Your task to perform on an android device: toggle priority inbox in the gmail app Image 0: 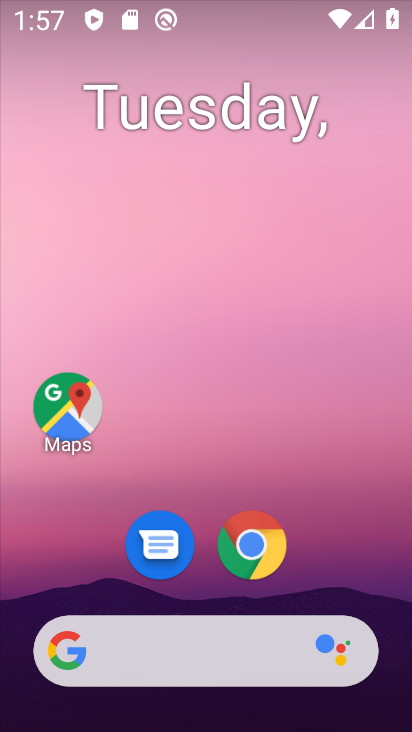
Step 0: drag from (325, 562) to (247, 61)
Your task to perform on an android device: toggle priority inbox in the gmail app Image 1: 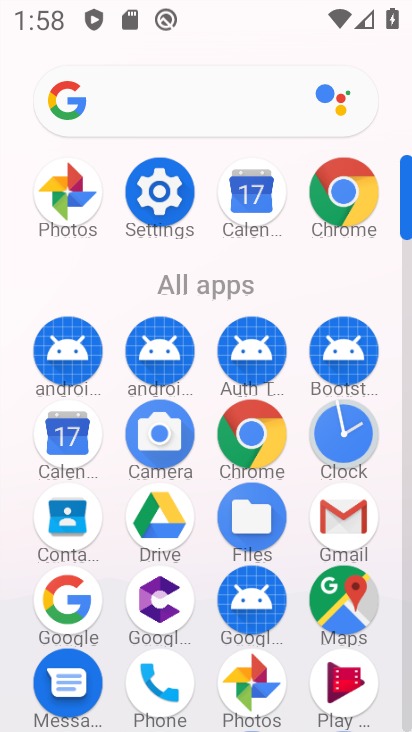
Step 1: drag from (7, 544) to (5, 272)
Your task to perform on an android device: toggle priority inbox in the gmail app Image 2: 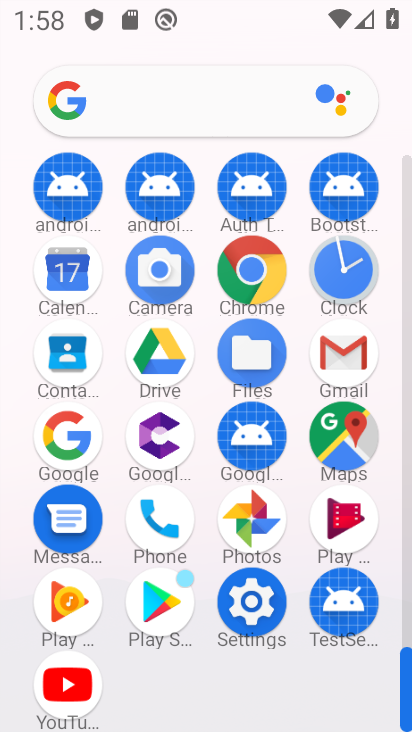
Step 2: click (245, 600)
Your task to perform on an android device: toggle priority inbox in the gmail app Image 3: 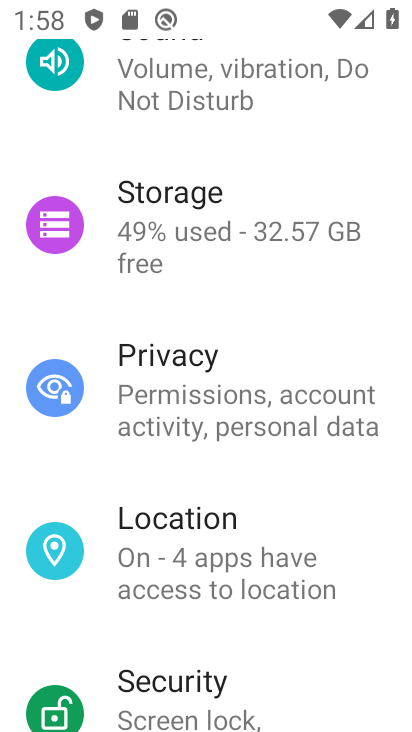
Step 3: press back button
Your task to perform on an android device: toggle priority inbox in the gmail app Image 4: 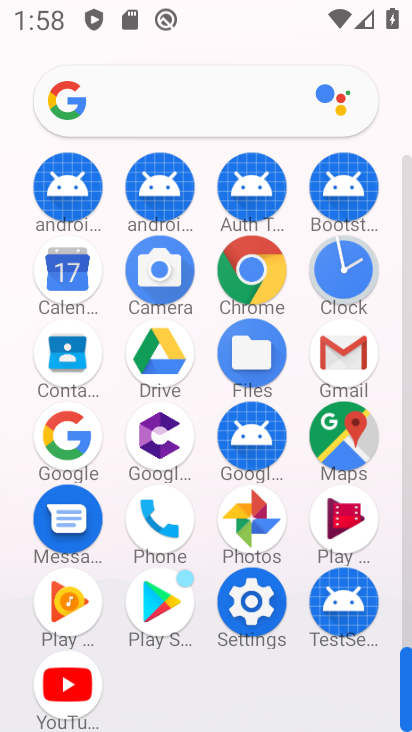
Step 4: click (342, 346)
Your task to perform on an android device: toggle priority inbox in the gmail app Image 5: 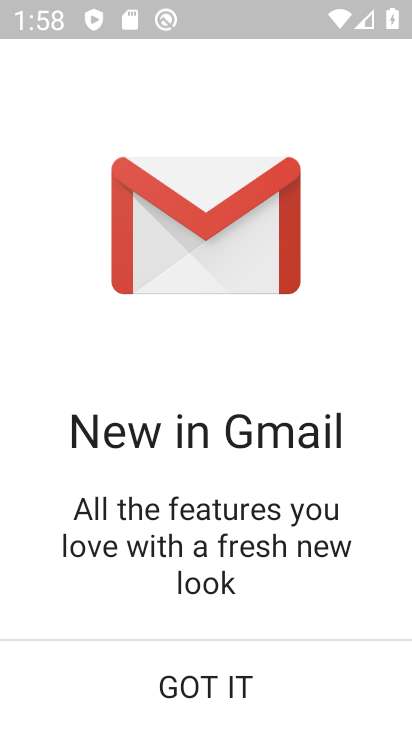
Step 5: click (174, 654)
Your task to perform on an android device: toggle priority inbox in the gmail app Image 6: 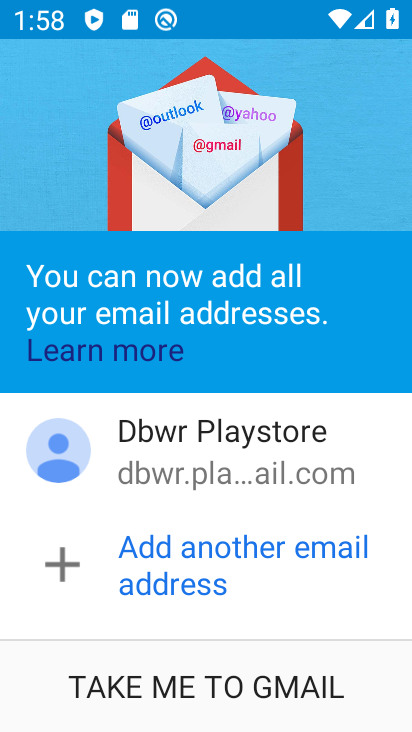
Step 6: click (177, 672)
Your task to perform on an android device: toggle priority inbox in the gmail app Image 7: 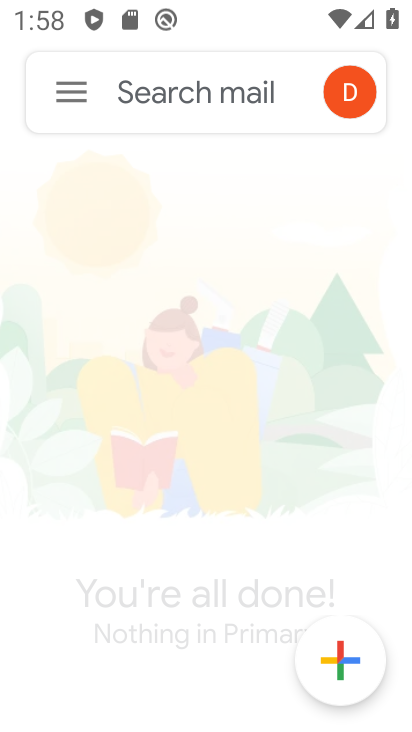
Step 7: click (57, 85)
Your task to perform on an android device: toggle priority inbox in the gmail app Image 8: 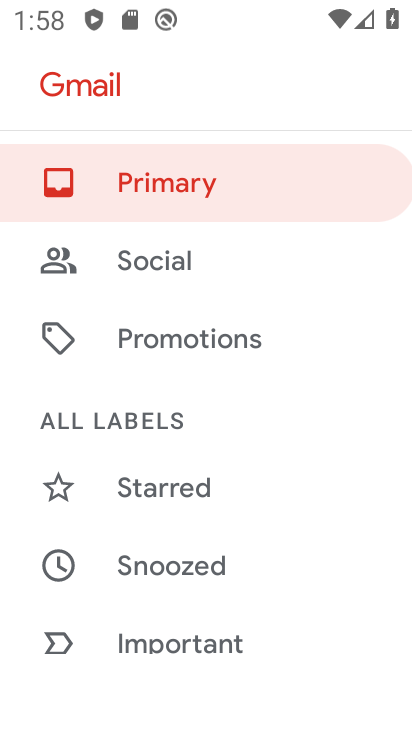
Step 8: drag from (237, 522) to (237, 168)
Your task to perform on an android device: toggle priority inbox in the gmail app Image 9: 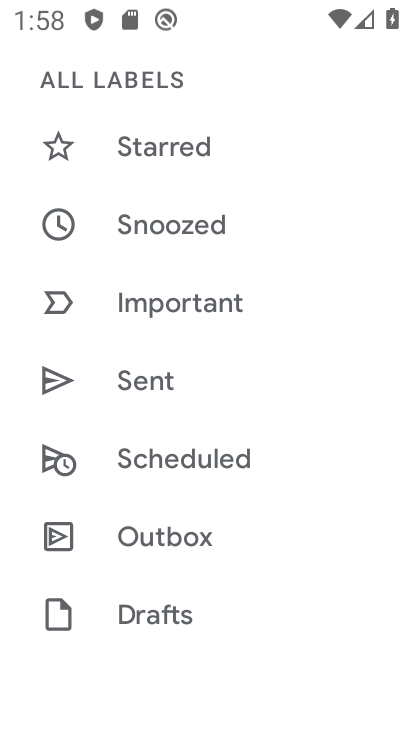
Step 9: drag from (213, 586) to (245, 225)
Your task to perform on an android device: toggle priority inbox in the gmail app Image 10: 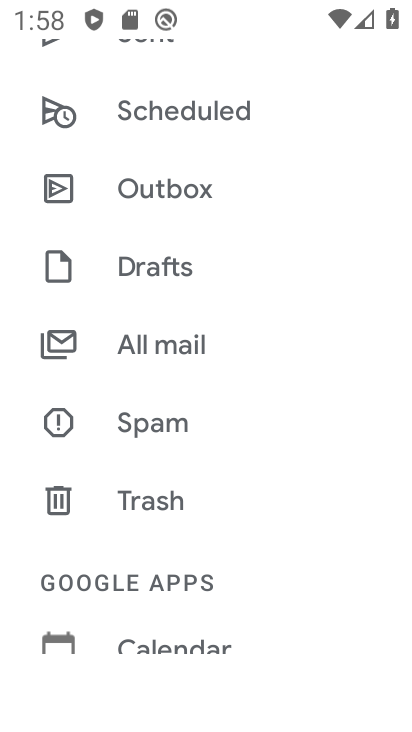
Step 10: drag from (217, 569) to (223, 145)
Your task to perform on an android device: toggle priority inbox in the gmail app Image 11: 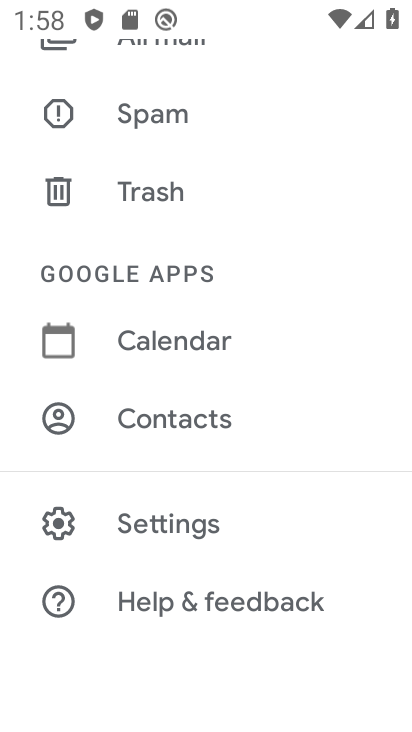
Step 11: click (163, 526)
Your task to perform on an android device: toggle priority inbox in the gmail app Image 12: 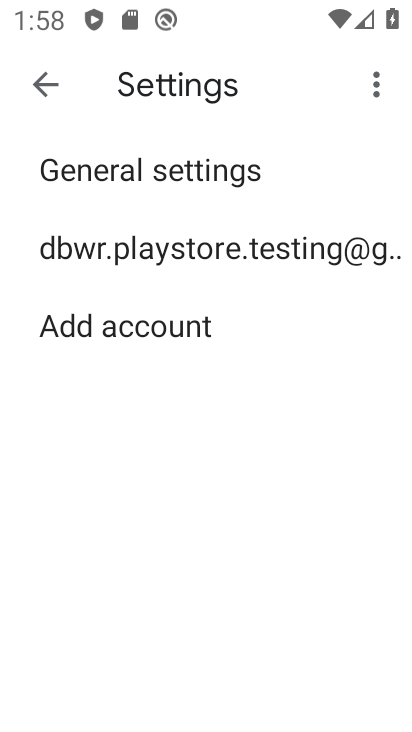
Step 12: click (203, 247)
Your task to perform on an android device: toggle priority inbox in the gmail app Image 13: 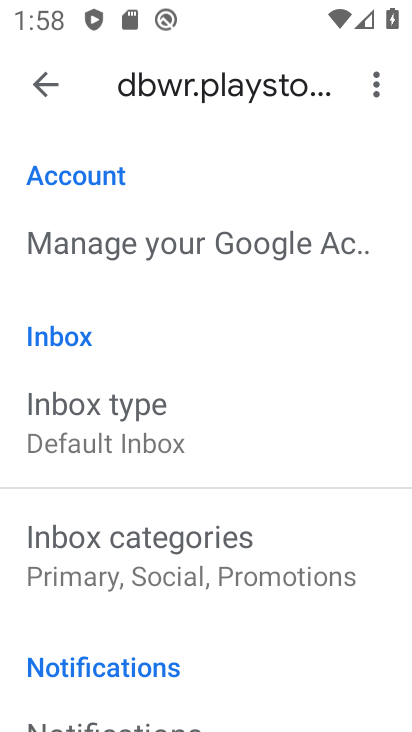
Step 13: click (188, 421)
Your task to perform on an android device: toggle priority inbox in the gmail app Image 14: 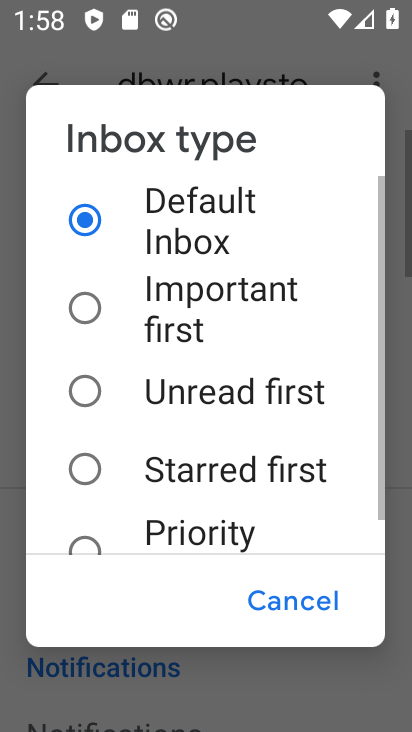
Step 14: click (178, 536)
Your task to perform on an android device: toggle priority inbox in the gmail app Image 15: 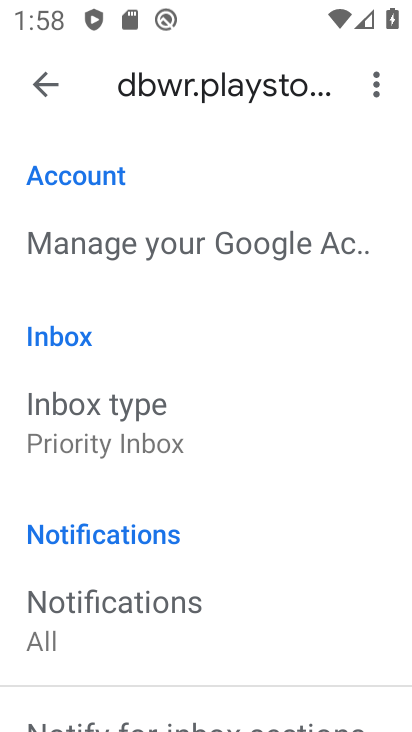
Step 15: task complete